Your task to perform on an android device: Open the calendar app, open the side menu, and click the "Day" option Image 0: 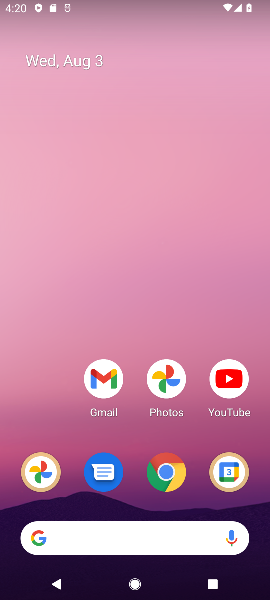
Step 0: drag from (134, 427) to (149, 19)
Your task to perform on an android device: Open the calendar app, open the side menu, and click the "Day" option Image 1: 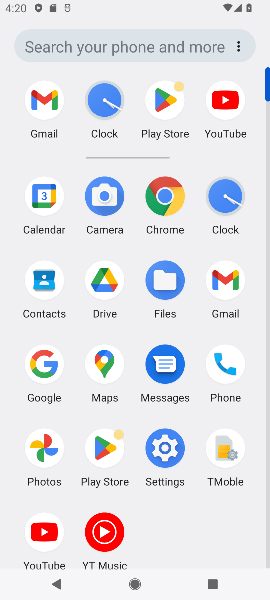
Step 1: click (40, 202)
Your task to perform on an android device: Open the calendar app, open the side menu, and click the "Day" option Image 2: 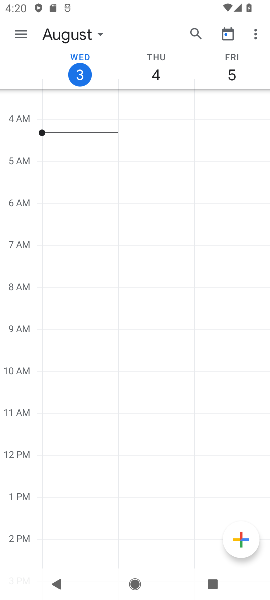
Step 2: click (26, 34)
Your task to perform on an android device: Open the calendar app, open the side menu, and click the "Day" option Image 3: 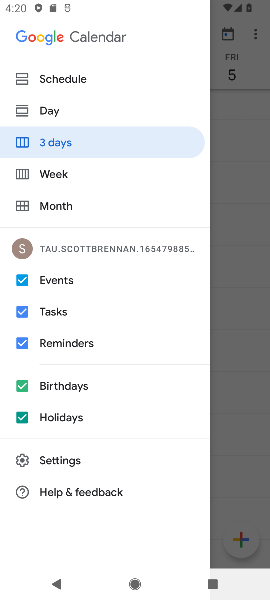
Step 3: click (61, 112)
Your task to perform on an android device: Open the calendar app, open the side menu, and click the "Day" option Image 4: 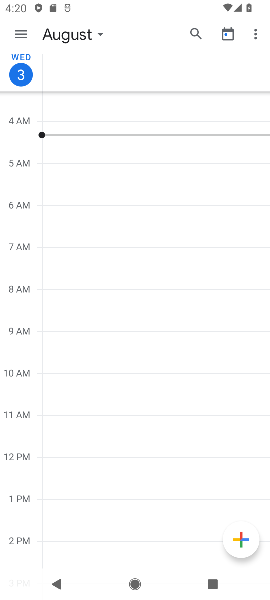
Step 4: task complete